Your task to perform on an android device: show emergency info Image 0: 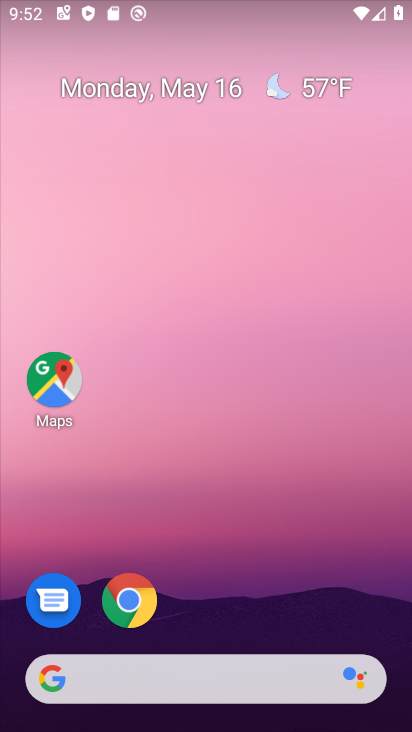
Step 0: drag from (407, 557) to (283, 115)
Your task to perform on an android device: show emergency info Image 1: 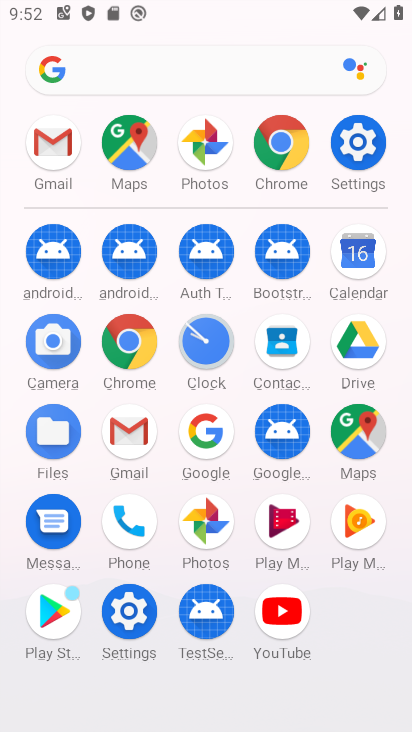
Step 1: click (341, 169)
Your task to perform on an android device: show emergency info Image 2: 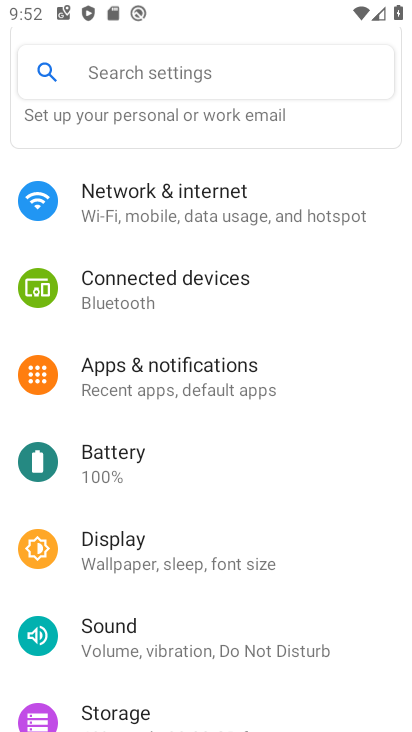
Step 2: drag from (218, 669) to (234, 260)
Your task to perform on an android device: show emergency info Image 3: 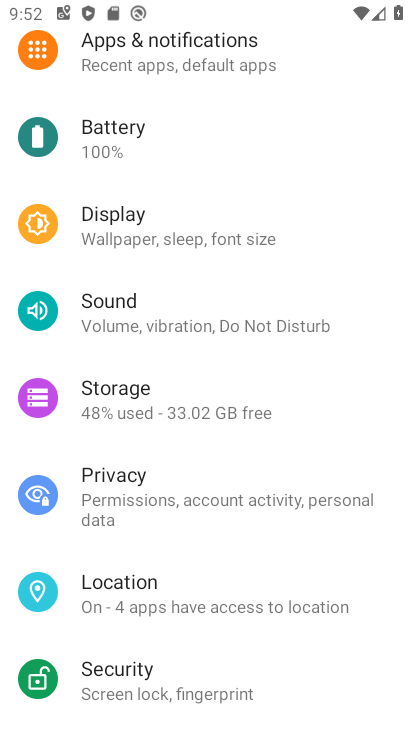
Step 3: drag from (193, 570) to (233, 234)
Your task to perform on an android device: show emergency info Image 4: 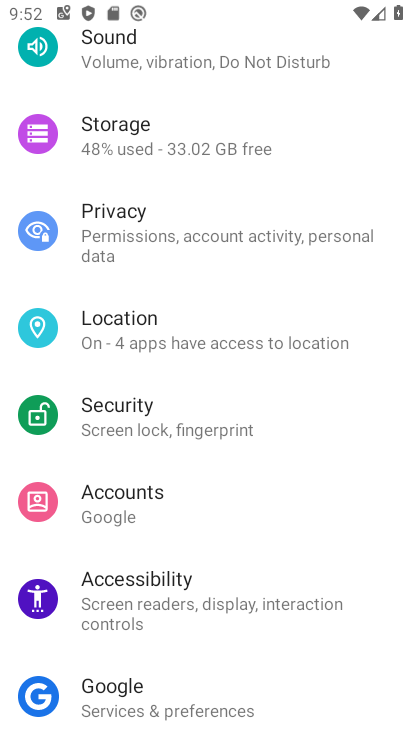
Step 4: drag from (251, 706) to (305, 309)
Your task to perform on an android device: show emergency info Image 5: 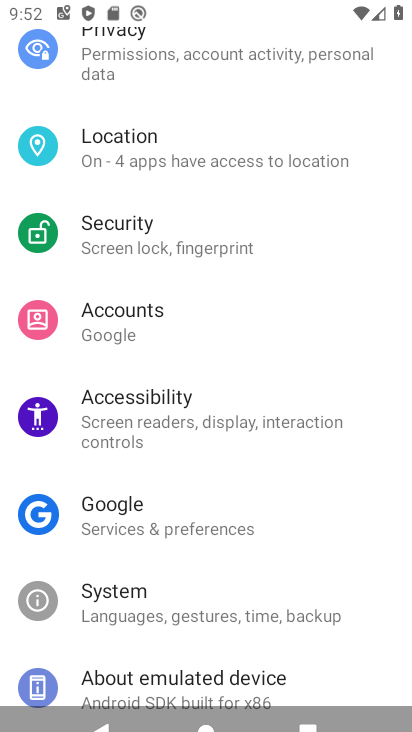
Step 5: click (282, 672)
Your task to perform on an android device: show emergency info Image 6: 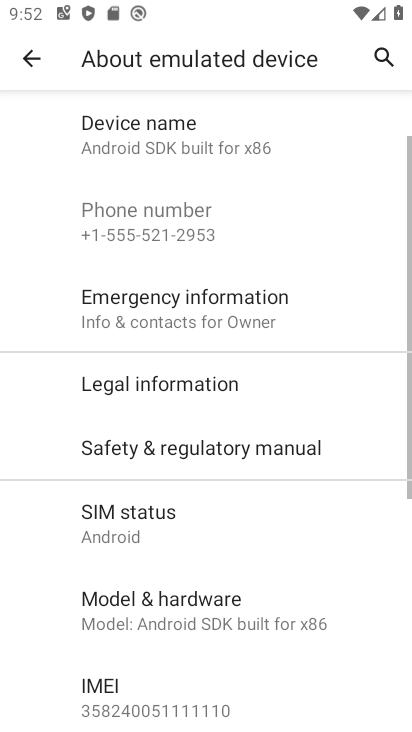
Step 6: click (248, 310)
Your task to perform on an android device: show emergency info Image 7: 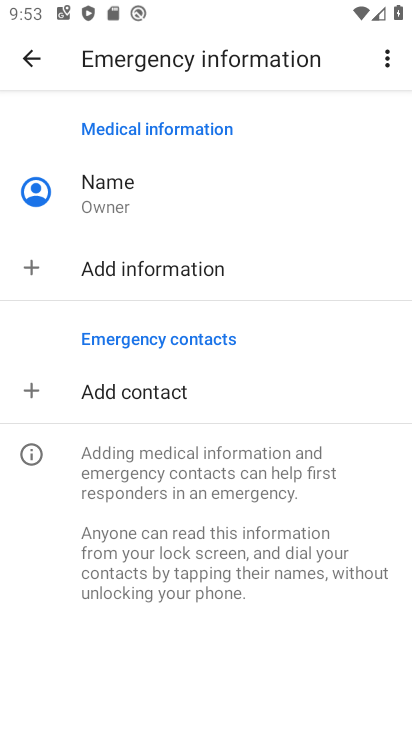
Step 7: task complete